Your task to perform on an android device: Go to Android settings Image 0: 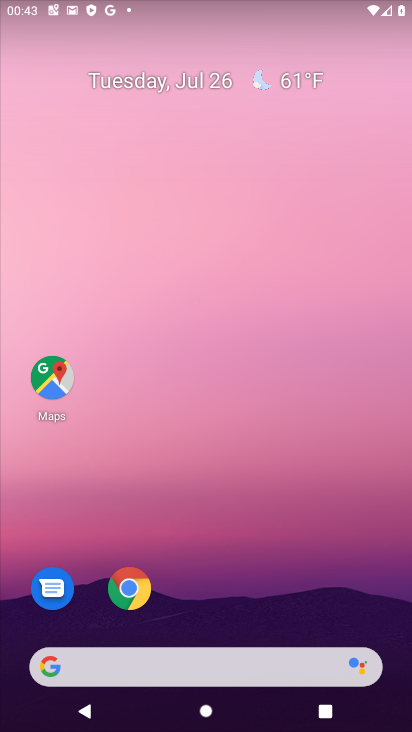
Step 0: press home button
Your task to perform on an android device: Go to Android settings Image 1: 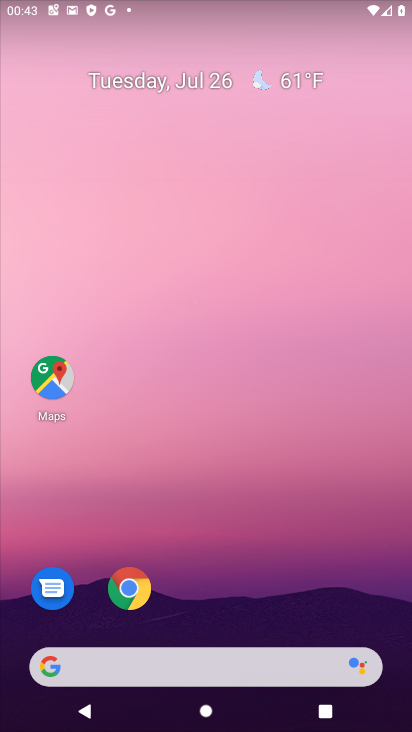
Step 1: drag from (215, 625) to (272, 182)
Your task to perform on an android device: Go to Android settings Image 2: 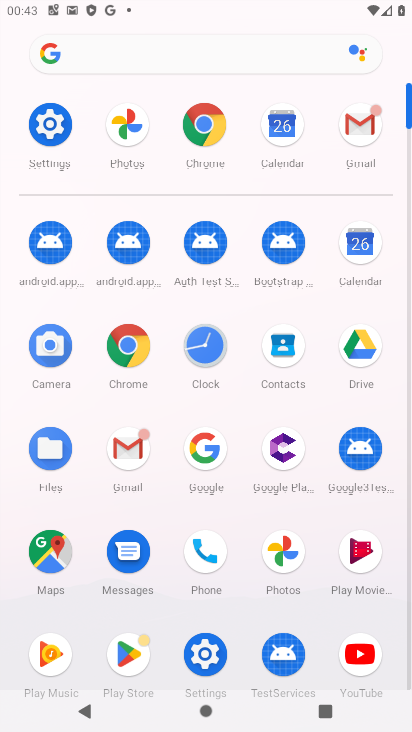
Step 2: click (45, 124)
Your task to perform on an android device: Go to Android settings Image 3: 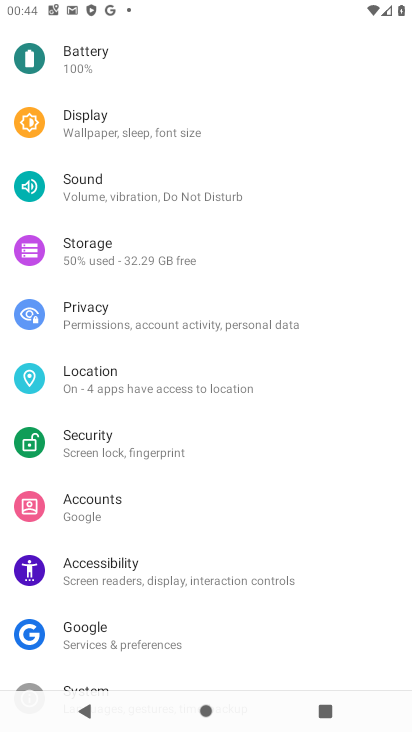
Step 3: drag from (171, 625) to (180, 21)
Your task to perform on an android device: Go to Android settings Image 4: 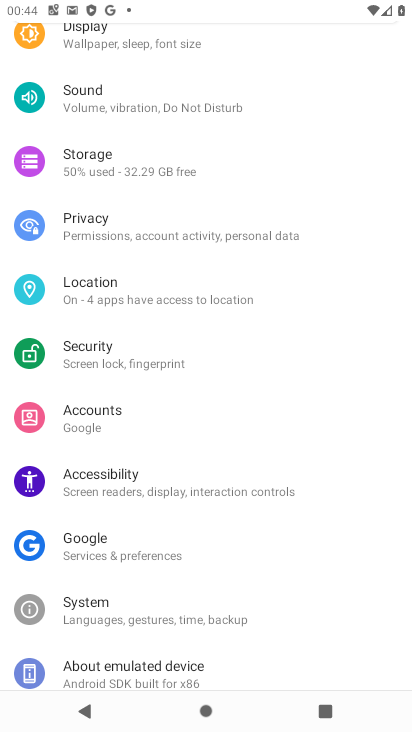
Step 4: drag from (175, 656) to (218, 10)
Your task to perform on an android device: Go to Android settings Image 5: 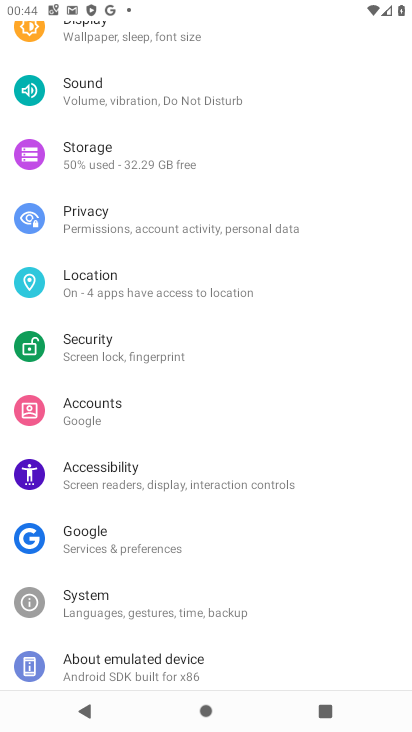
Step 5: click (158, 651)
Your task to perform on an android device: Go to Android settings Image 6: 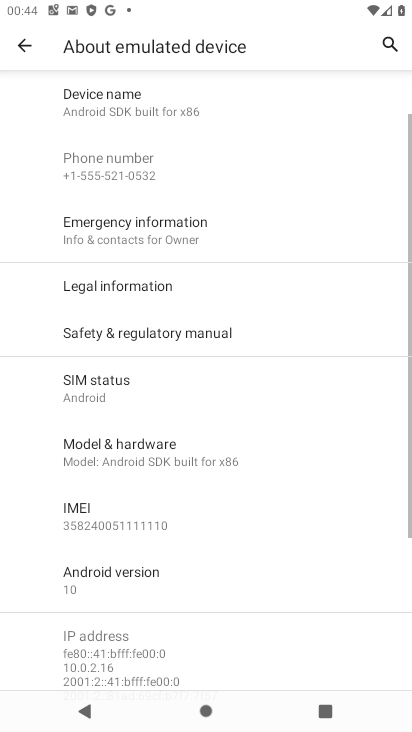
Step 6: task complete